Your task to perform on an android device: Clear the shopping cart on target. Image 0: 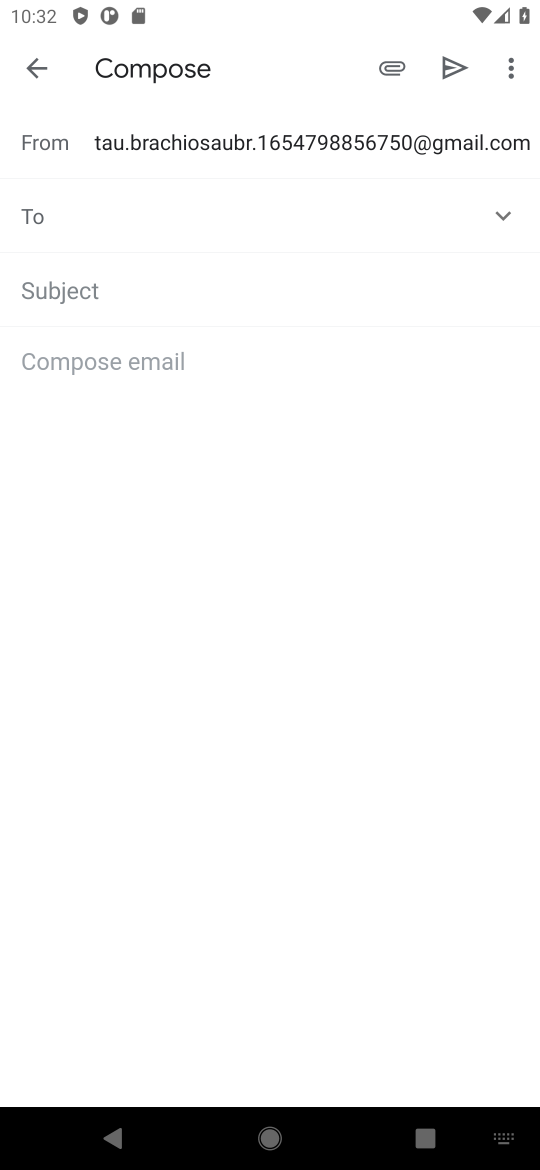
Step 0: press home button
Your task to perform on an android device: Clear the shopping cart on target. Image 1: 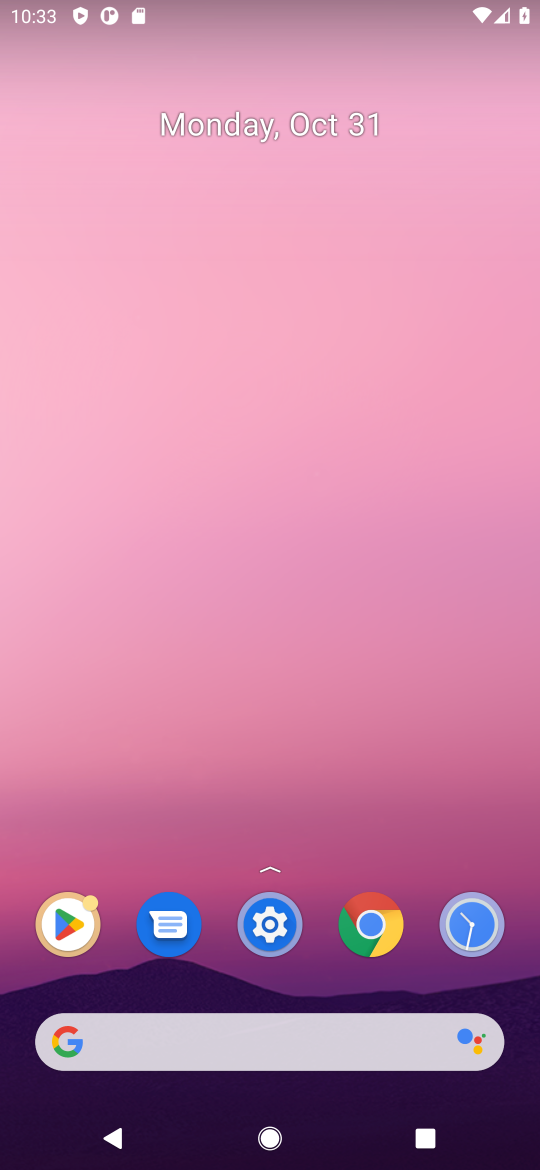
Step 1: click (372, 927)
Your task to perform on an android device: Clear the shopping cart on target. Image 2: 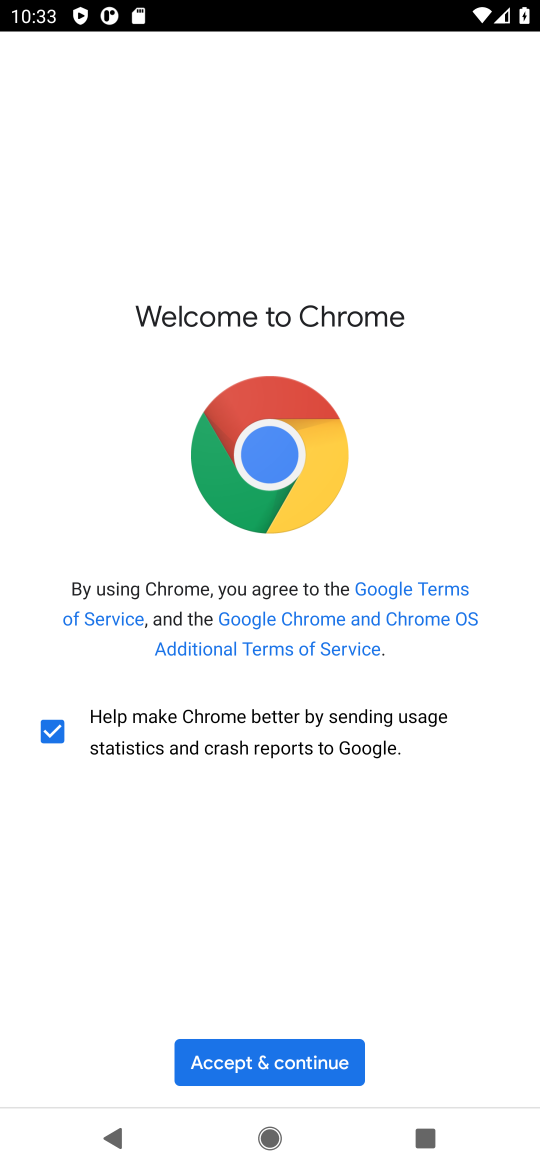
Step 2: click (237, 1071)
Your task to perform on an android device: Clear the shopping cart on target. Image 3: 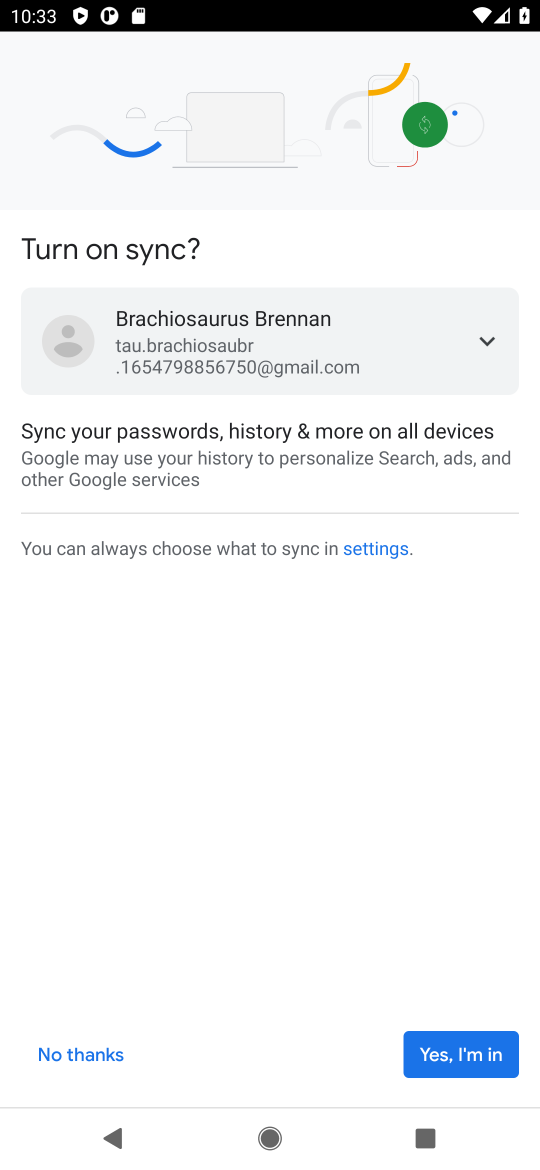
Step 3: click (463, 1050)
Your task to perform on an android device: Clear the shopping cart on target. Image 4: 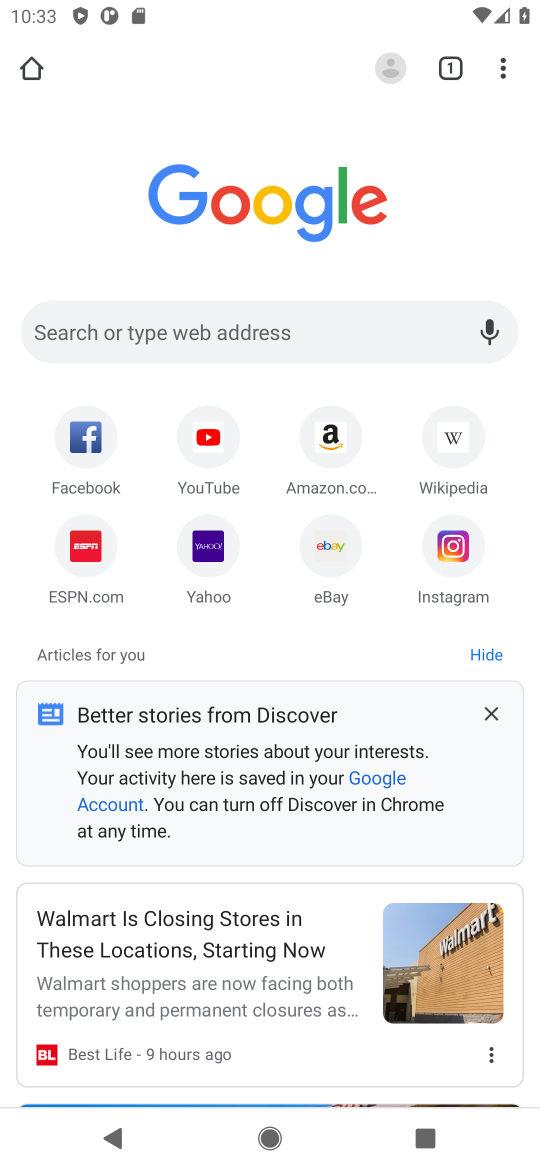
Step 4: click (208, 344)
Your task to perform on an android device: Clear the shopping cart on target. Image 5: 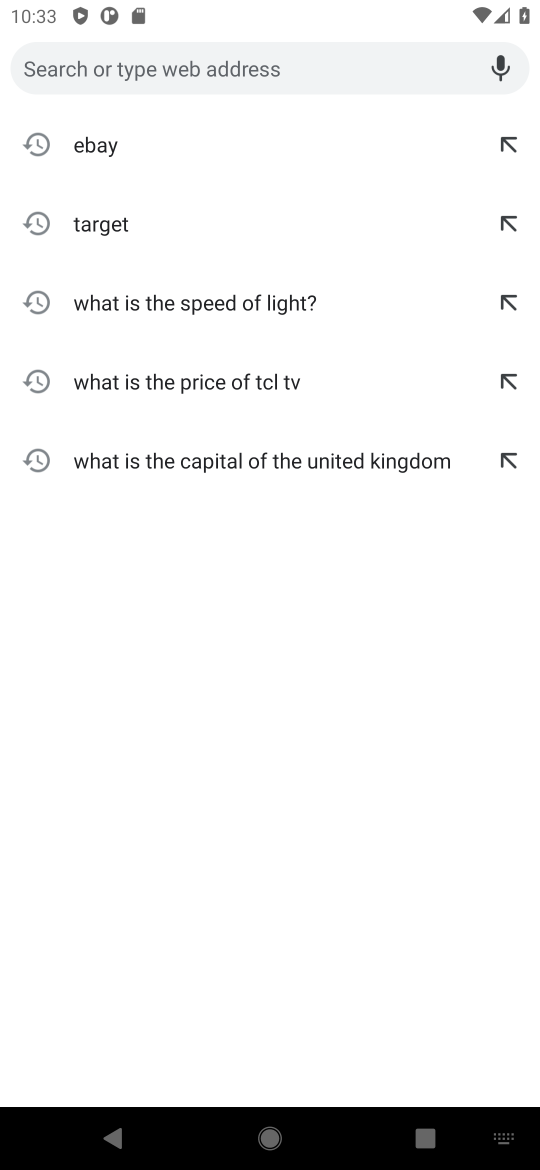
Step 5: type "on target"
Your task to perform on an android device: Clear the shopping cart on target. Image 6: 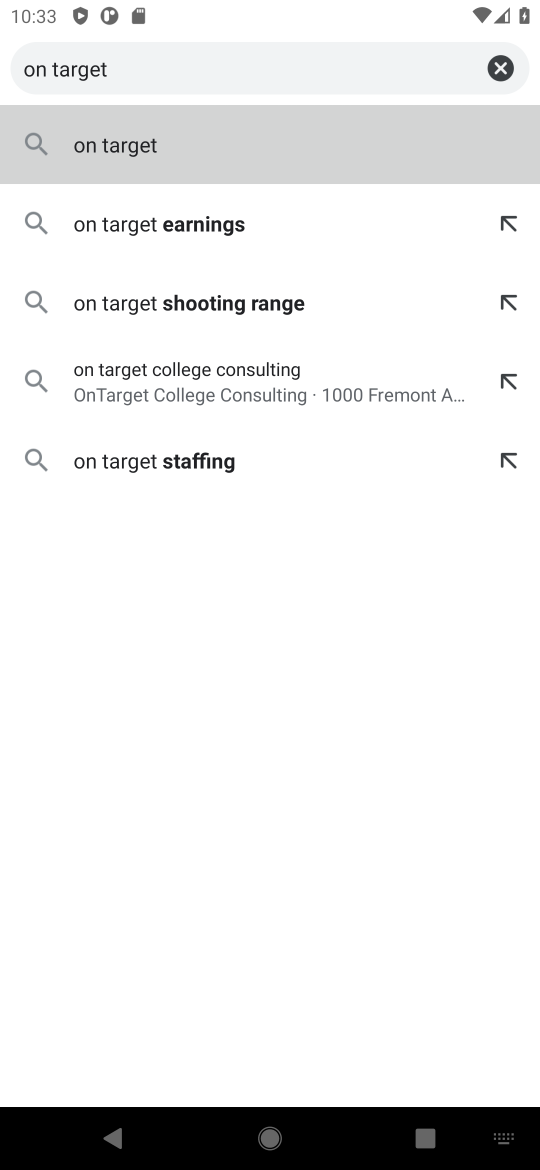
Step 6: type ""
Your task to perform on an android device: Clear the shopping cart on target. Image 7: 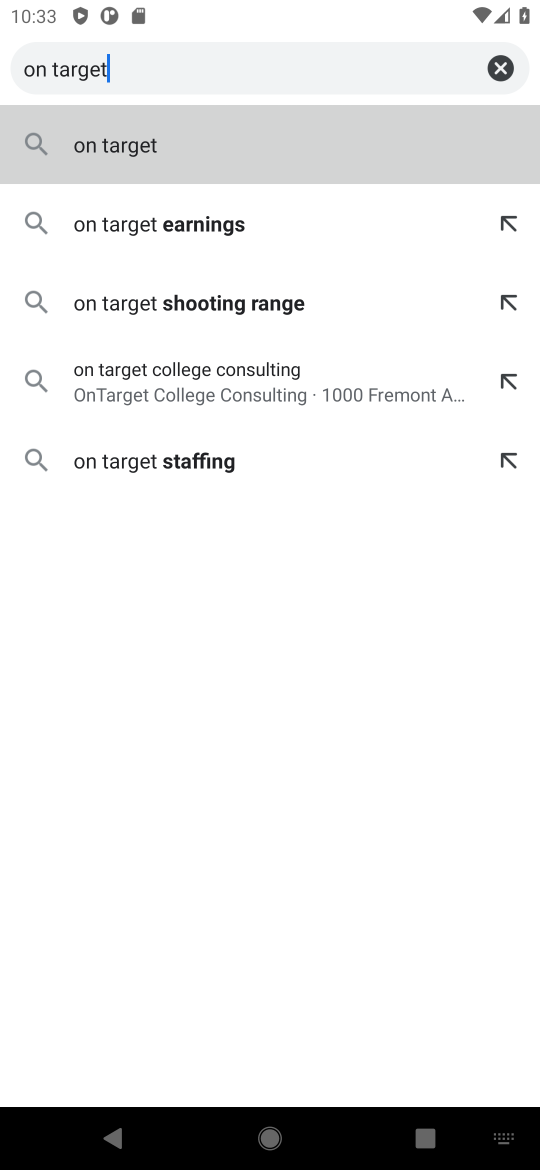
Step 7: click (174, 148)
Your task to perform on an android device: Clear the shopping cart on target. Image 8: 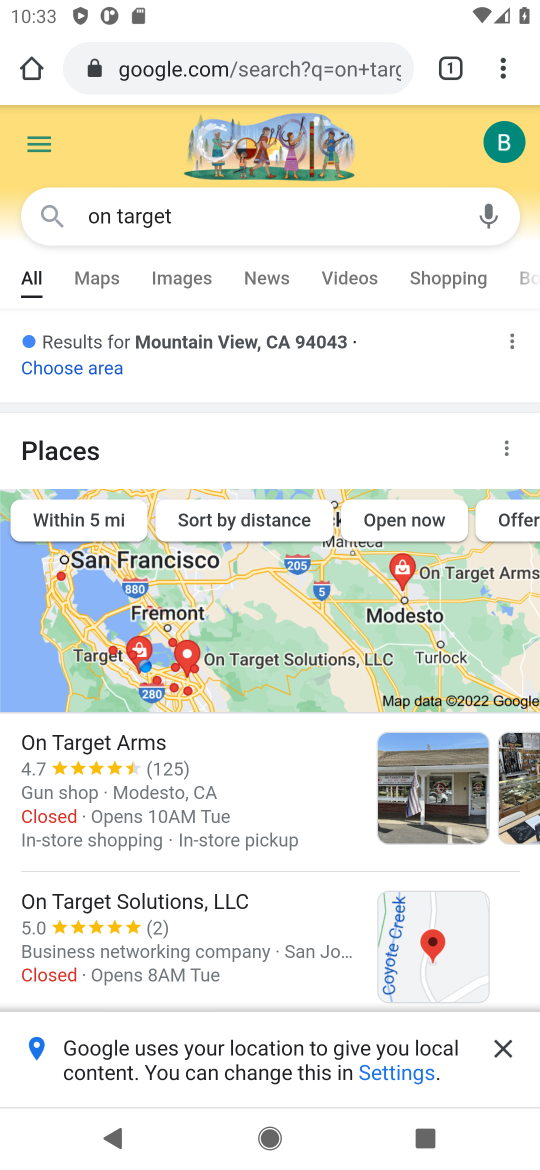
Step 8: drag from (250, 901) to (332, 467)
Your task to perform on an android device: Clear the shopping cart on target. Image 9: 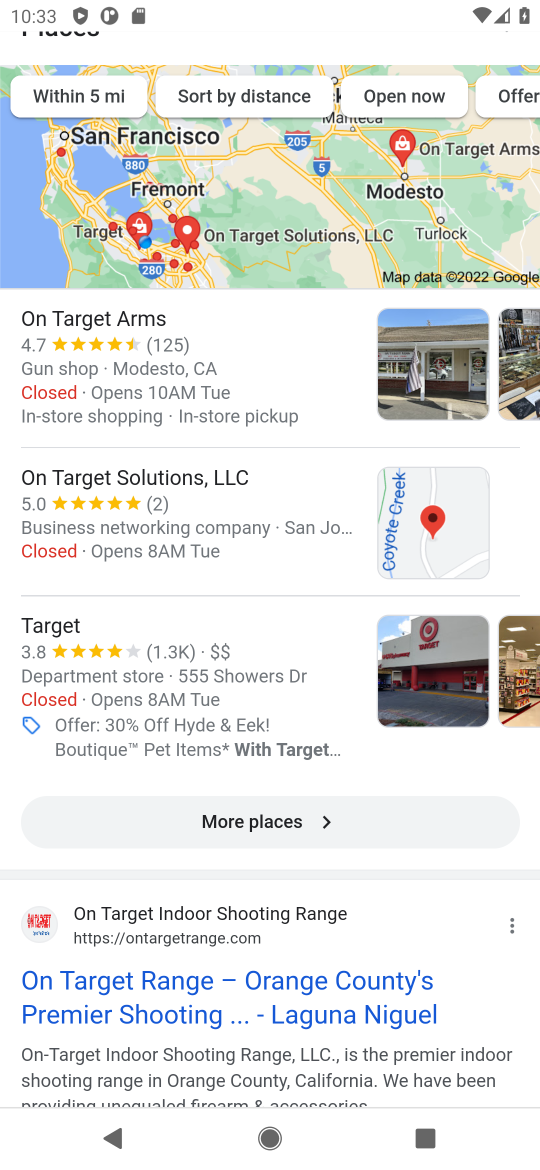
Step 9: drag from (281, 801) to (354, 552)
Your task to perform on an android device: Clear the shopping cart on target. Image 10: 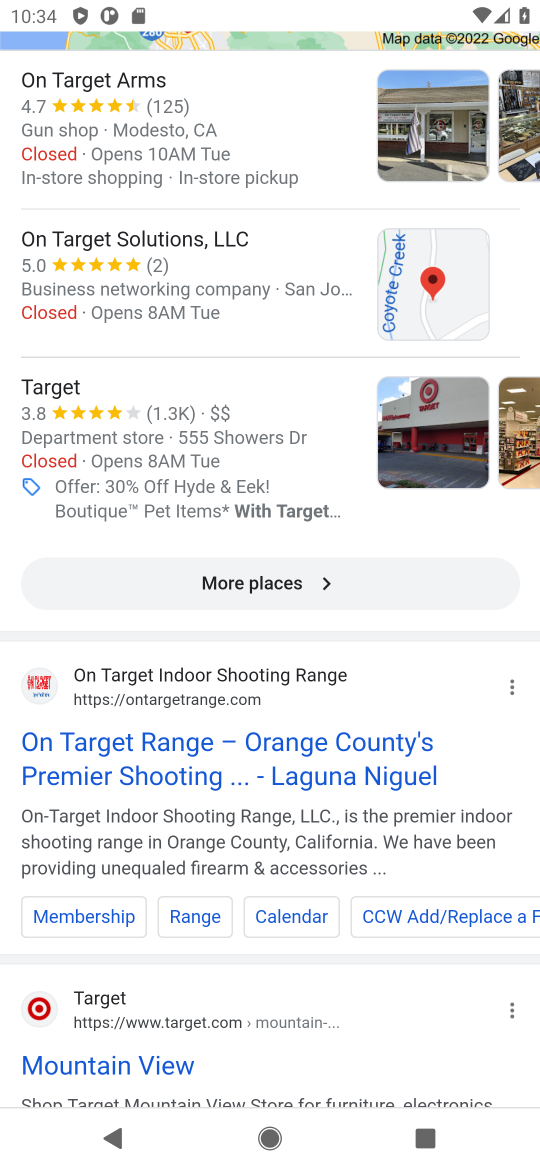
Step 10: click (324, 769)
Your task to perform on an android device: Clear the shopping cart on target. Image 11: 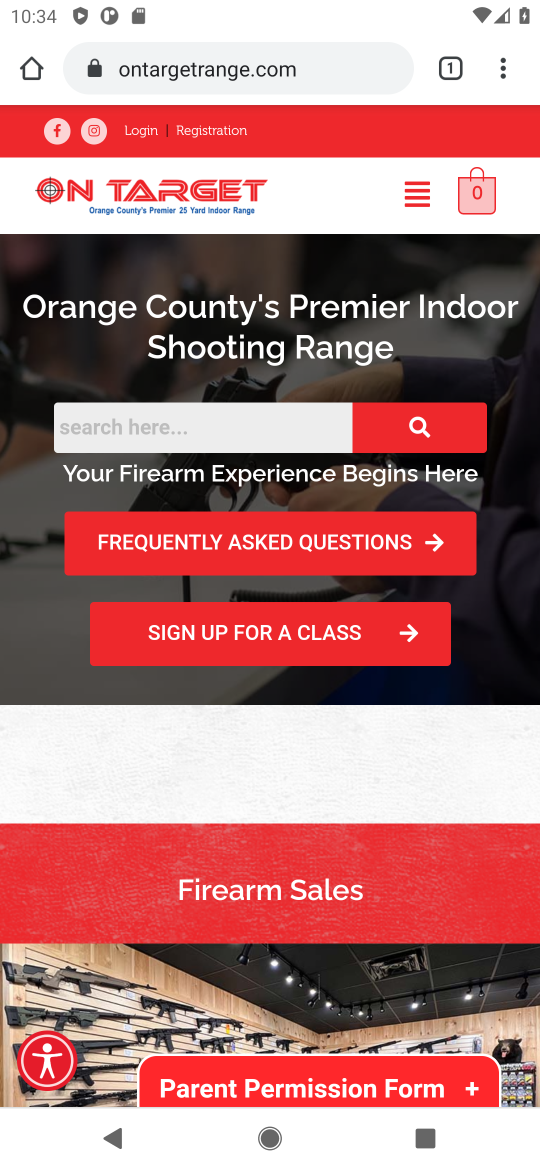
Step 11: click (470, 195)
Your task to perform on an android device: Clear the shopping cart on target. Image 12: 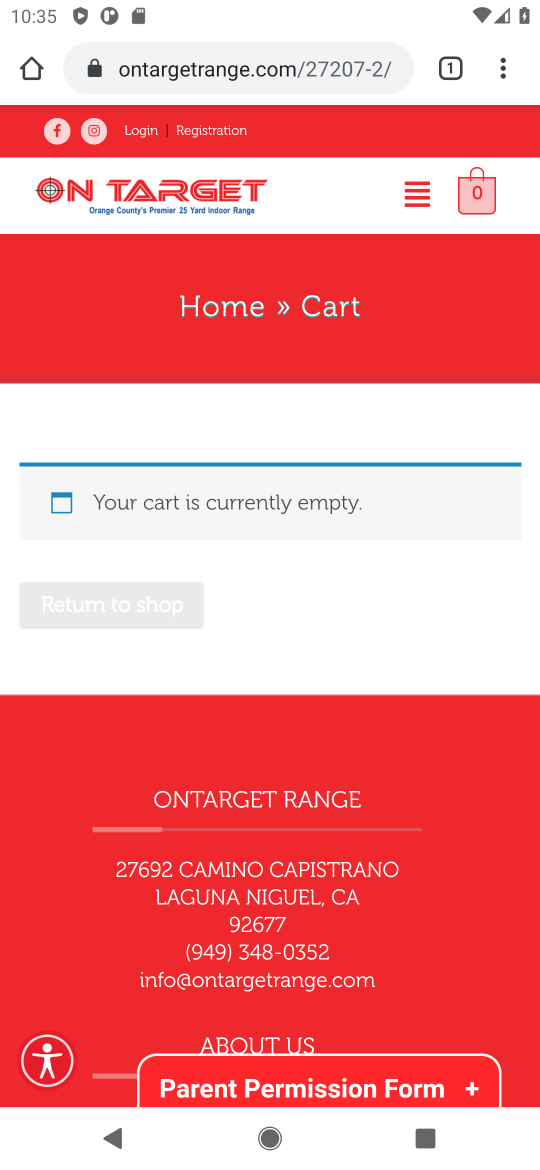
Step 12: task complete